Your task to perform on an android device: Turn on the flashlight Image 0: 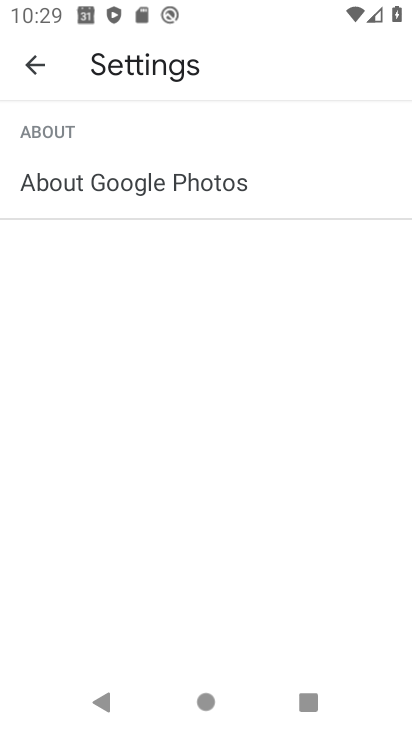
Step 0: press home button
Your task to perform on an android device: Turn on the flashlight Image 1: 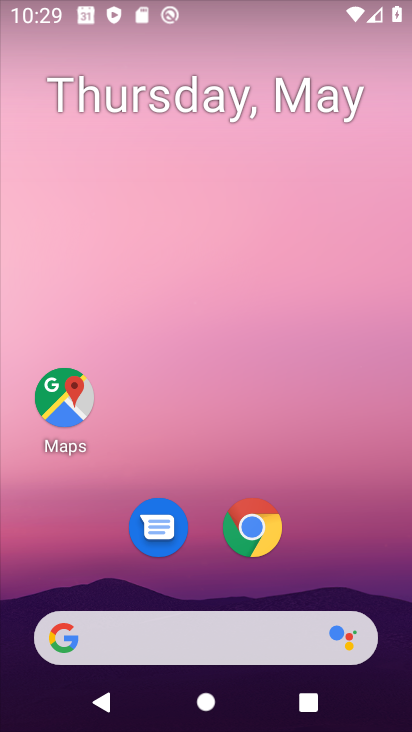
Step 1: drag from (224, 725) to (201, 103)
Your task to perform on an android device: Turn on the flashlight Image 2: 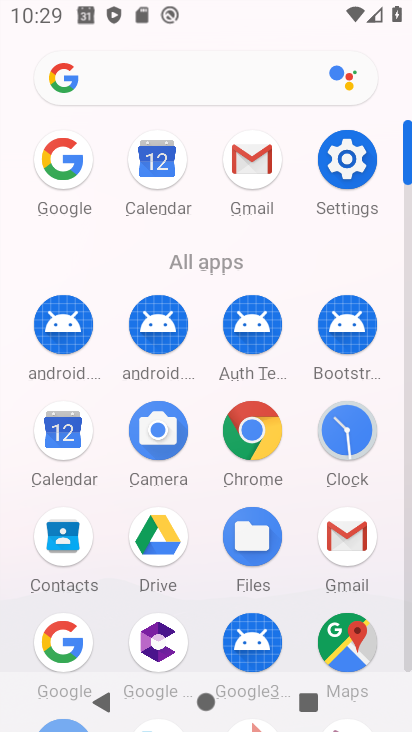
Step 2: click (354, 160)
Your task to perform on an android device: Turn on the flashlight Image 3: 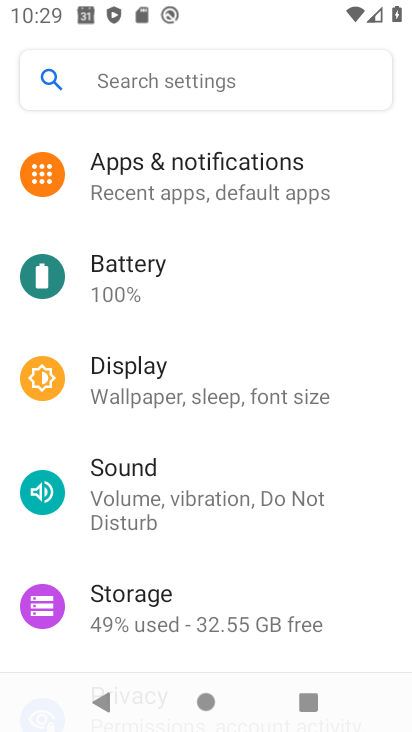
Step 3: task complete